Your task to perform on an android device: check out phone information Image 0: 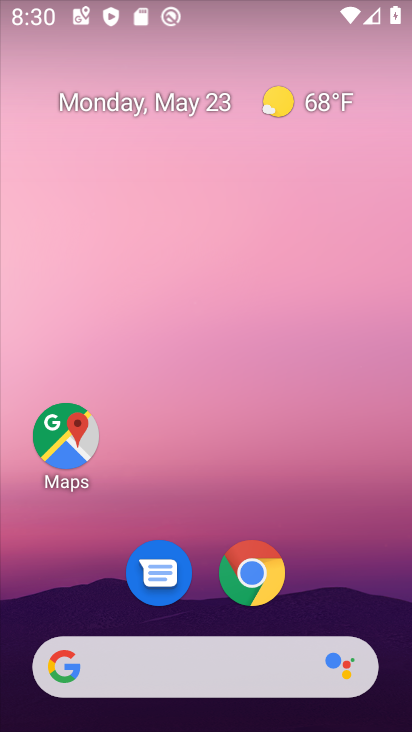
Step 0: click (250, 291)
Your task to perform on an android device: check out phone information Image 1: 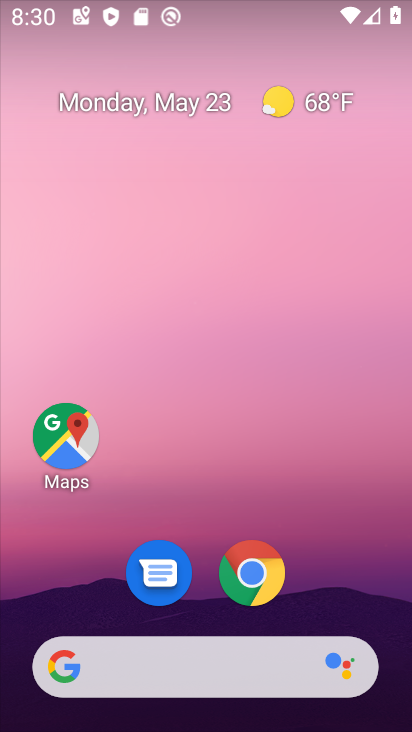
Step 1: drag from (298, 650) to (319, 12)
Your task to perform on an android device: check out phone information Image 2: 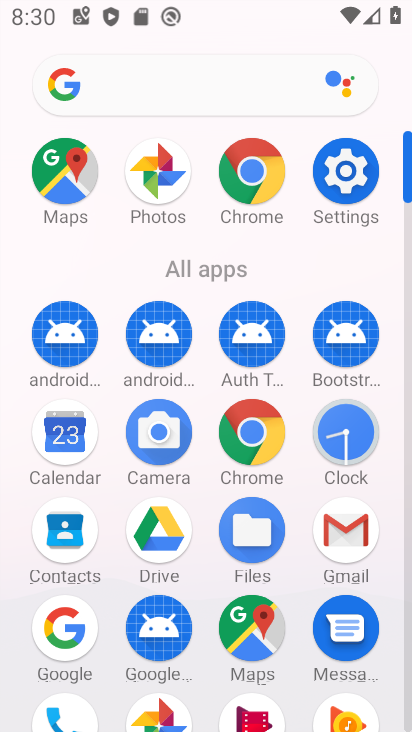
Step 2: click (349, 177)
Your task to perform on an android device: check out phone information Image 3: 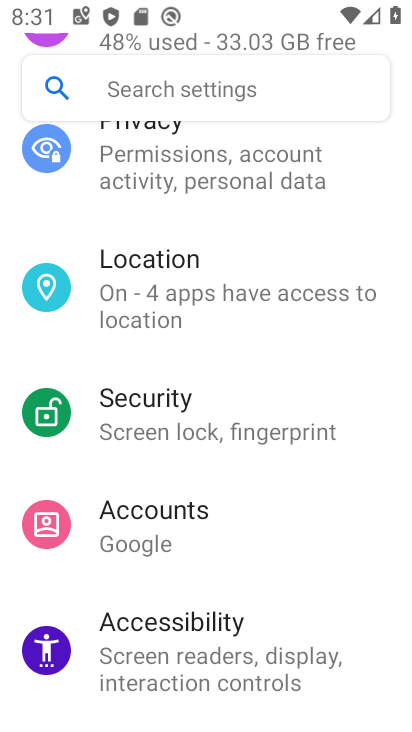
Step 3: drag from (243, 589) to (279, 126)
Your task to perform on an android device: check out phone information Image 4: 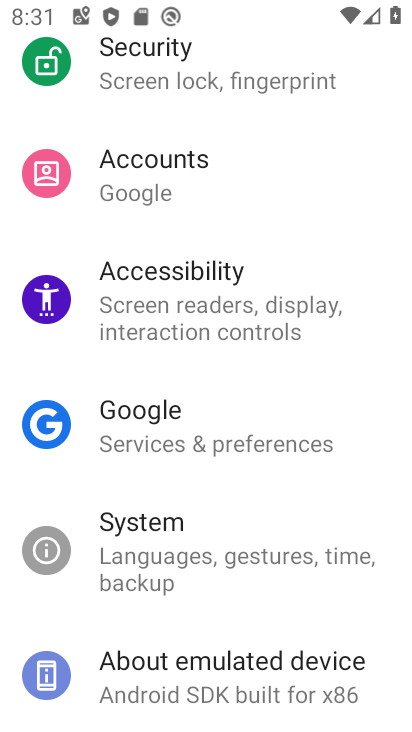
Step 4: drag from (212, 602) to (260, 261)
Your task to perform on an android device: check out phone information Image 5: 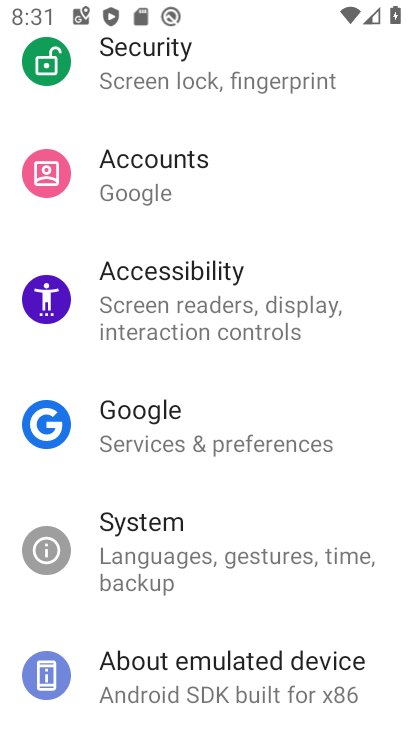
Step 5: drag from (220, 641) to (293, 339)
Your task to perform on an android device: check out phone information Image 6: 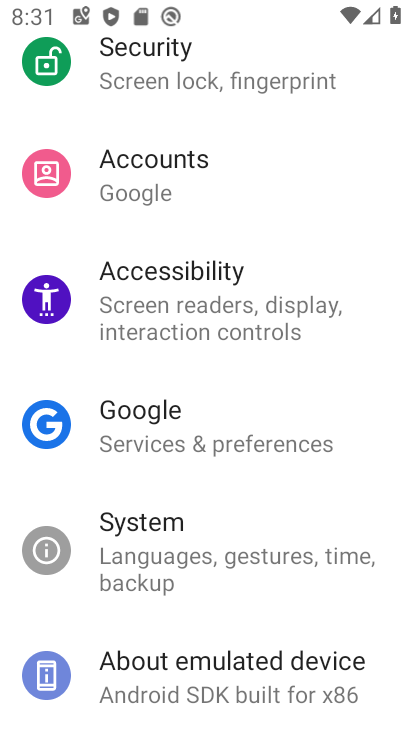
Step 6: click (225, 664)
Your task to perform on an android device: check out phone information Image 7: 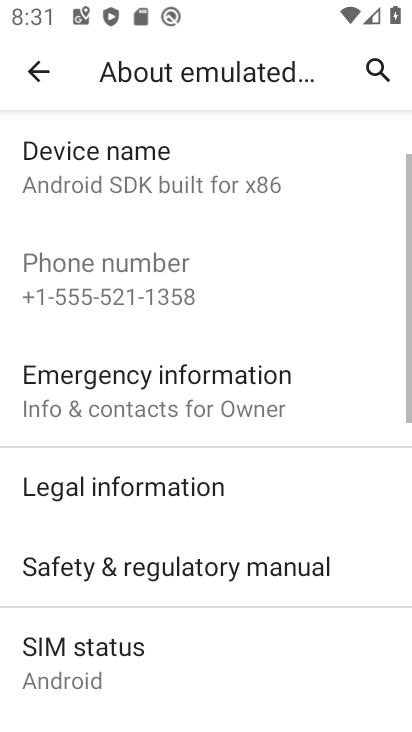
Step 7: task complete